Your task to perform on an android device: Go to privacy settings Image 0: 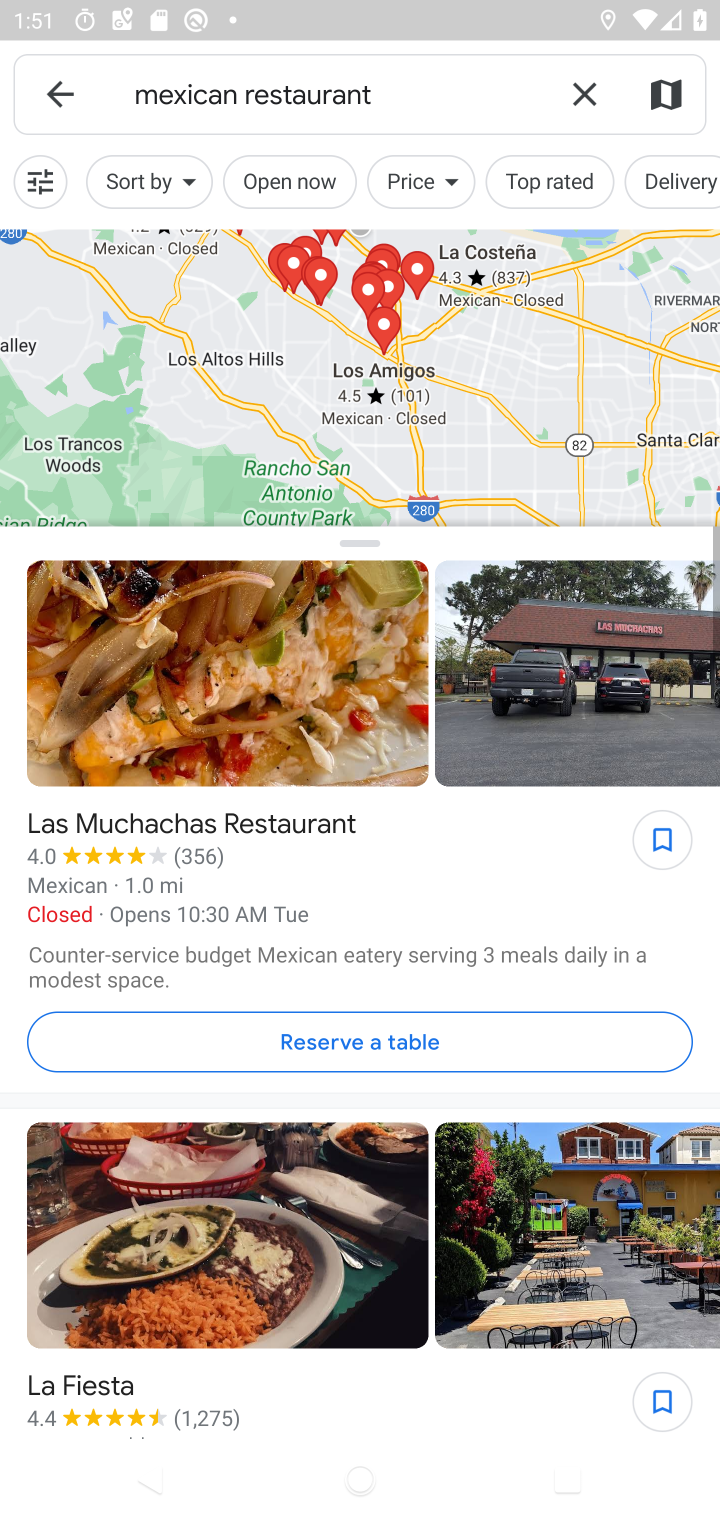
Step 0: press home button
Your task to perform on an android device: Go to privacy settings Image 1: 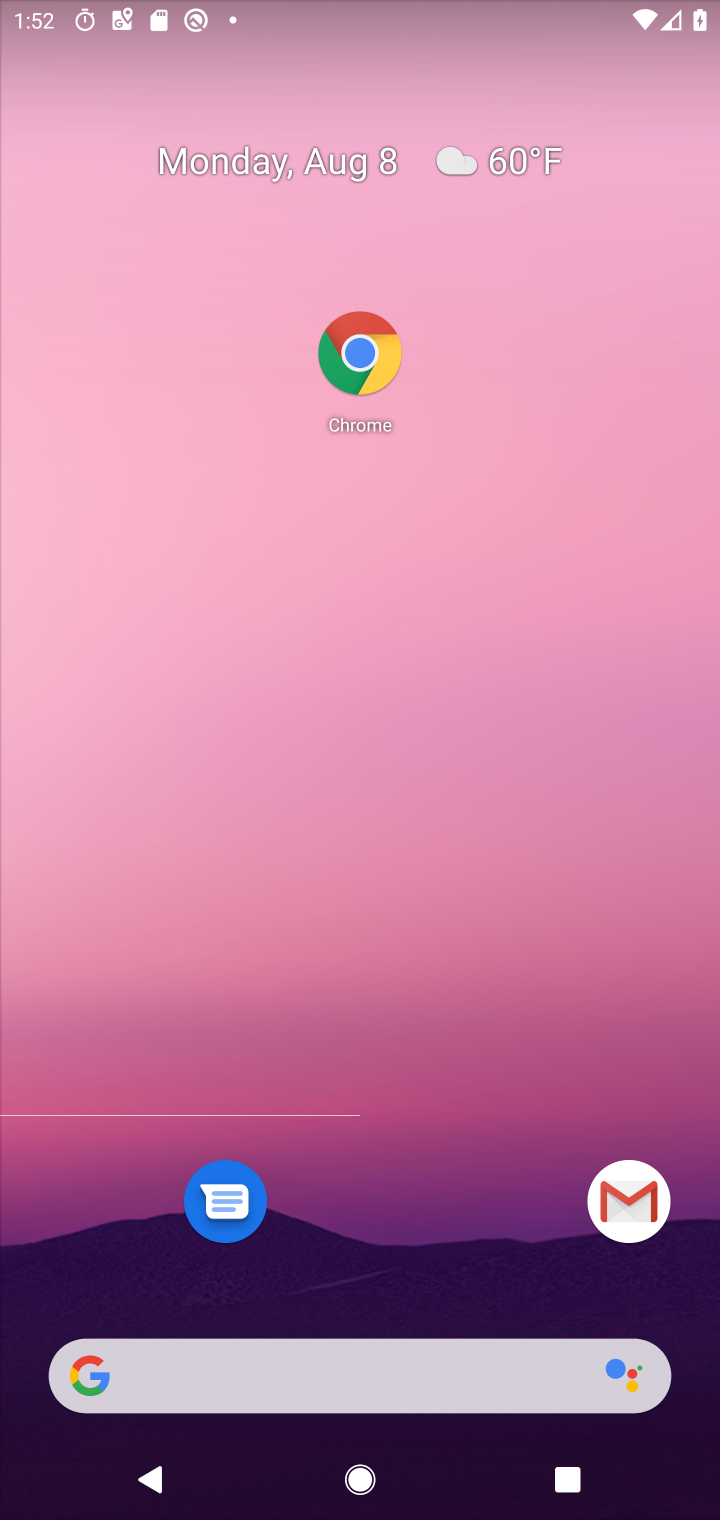
Step 1: drag from (403, 1407) to (427, 513)
Your task to perform on an android device: Go to privacy settings Image 2: 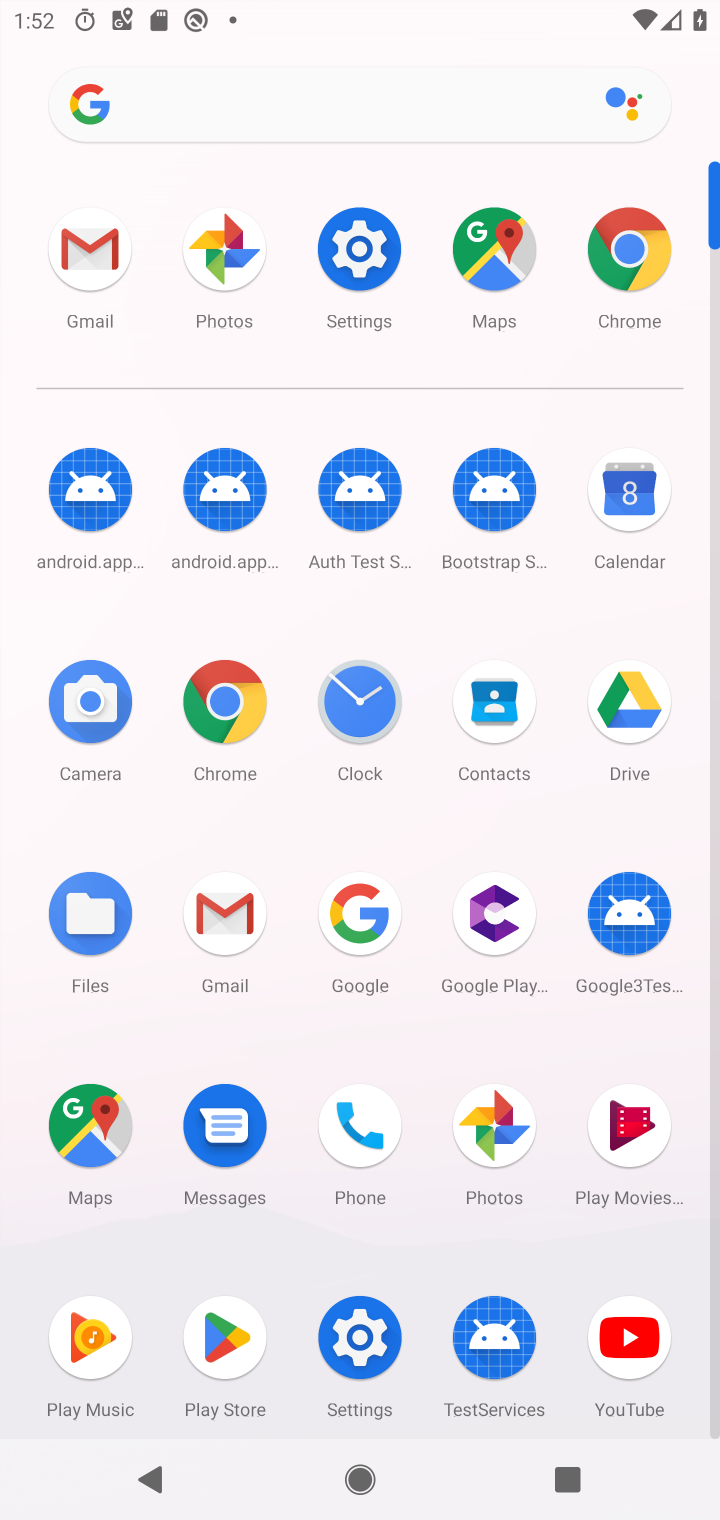
Step 2: click (362, 1304)
Your task to perform on an android device: Go to privacy settings Image 3: 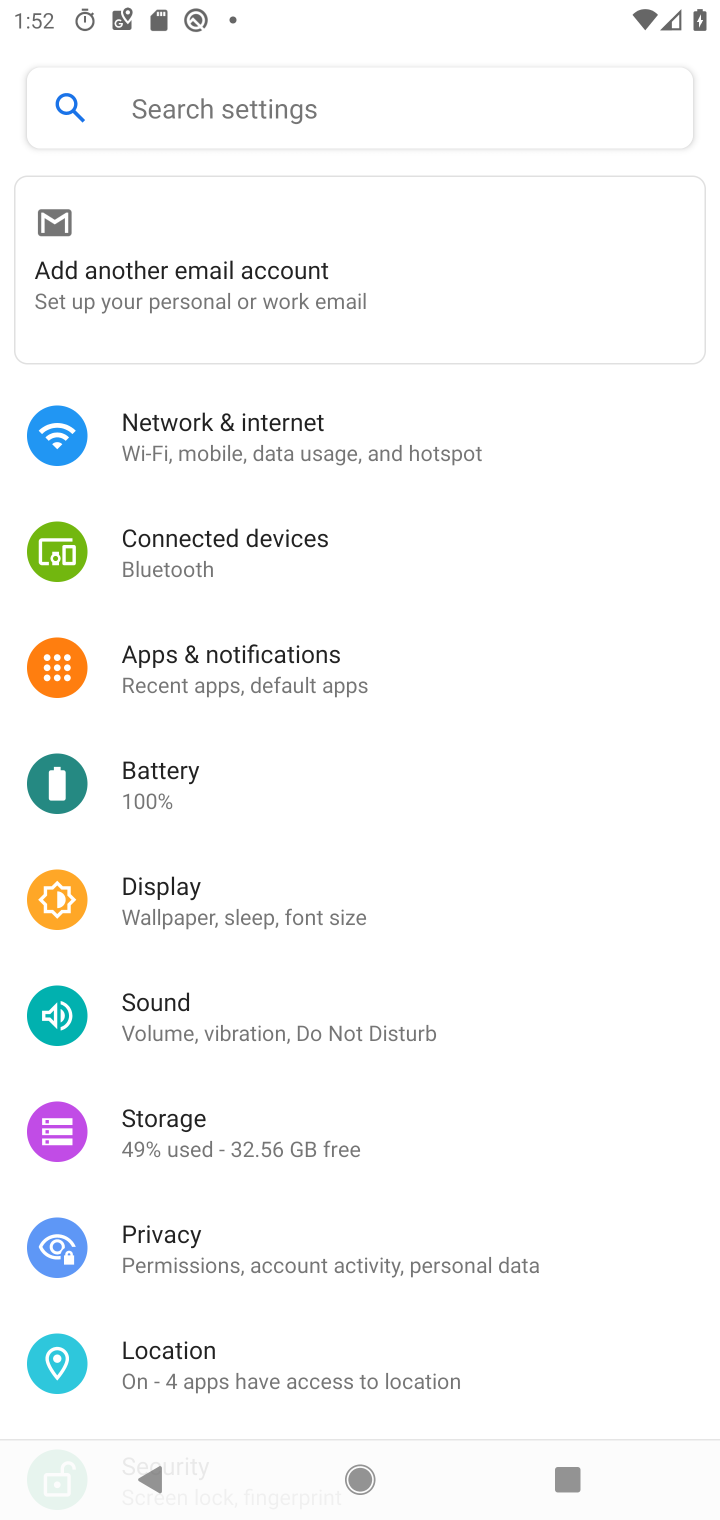
Step 3: click (224, 1273)
Your task to perform on an android device: Go to privacy settings Image 4: 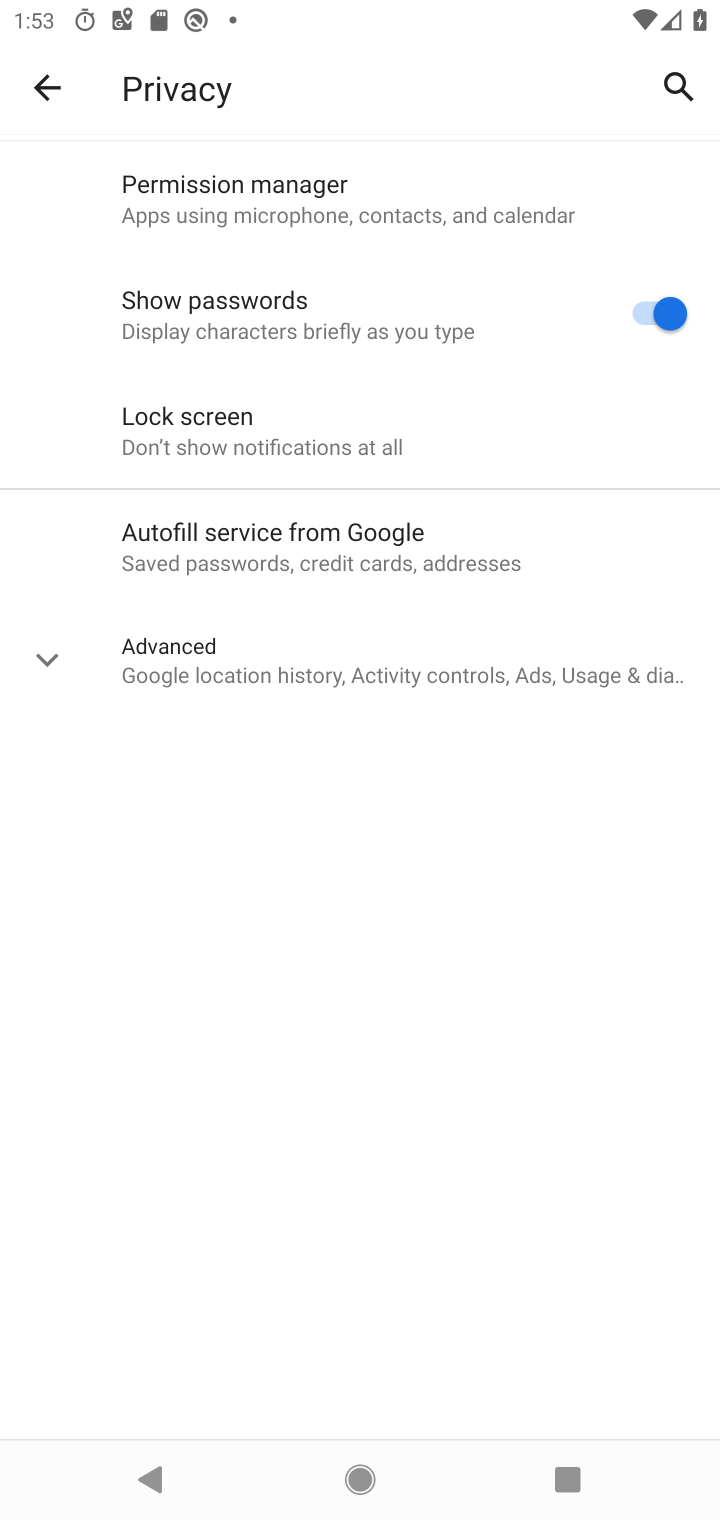
Step 4: task complete